Your task to perform on an android device: Open wifi settings Image 0: 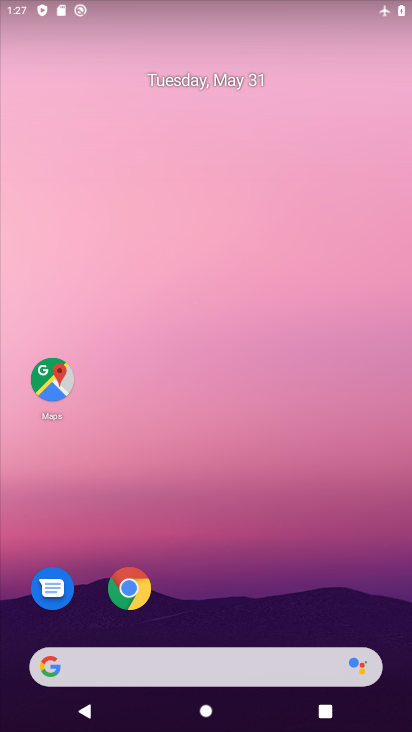
Step 0: drag from (366, 609) to (368, 244)
Your task to perform on an android device: Open wifi settings Image 1: 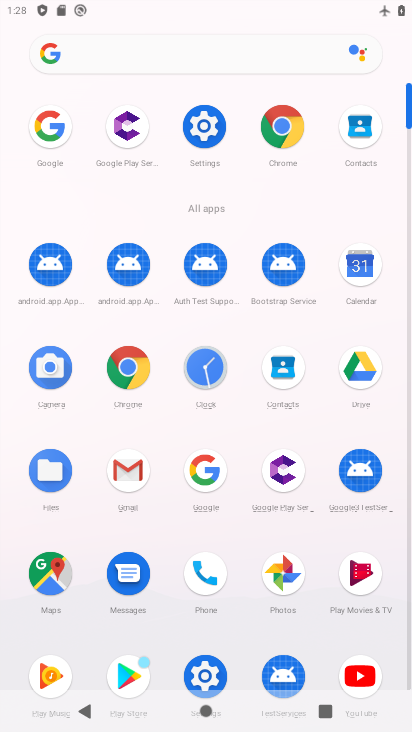
Step 1: click (208, 145)
Your task to perform on an android device: Open wifi settings Image 2: 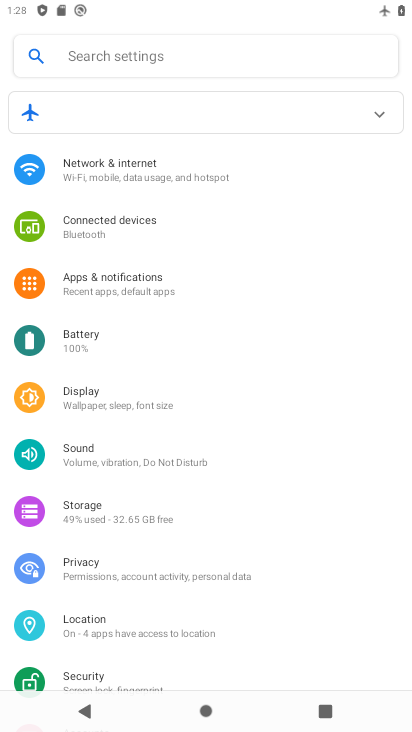
Step 2: click (220, 164)
Your task to perform on an android device: Open wifi settings Image 3: 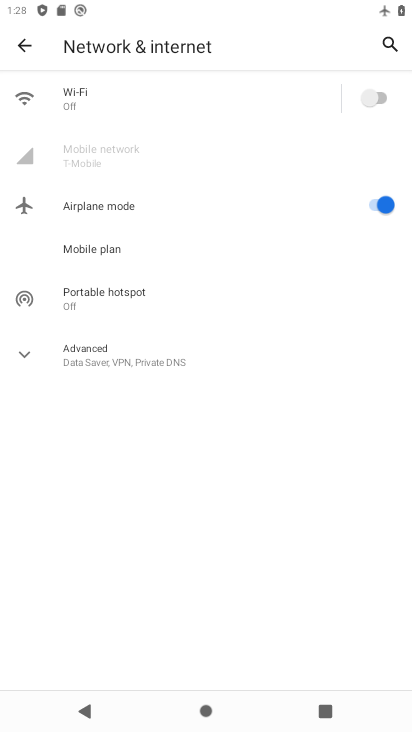
Step 3: click (99, 102)
Your task to perform on an android device: Open wifi settings Image 4: 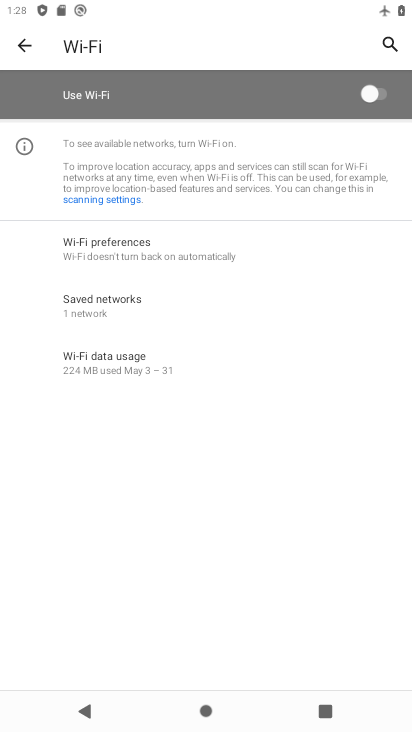
Step 4: task complete